Your task to perform on an android device: toggle javascript in the chrome app Image 0: 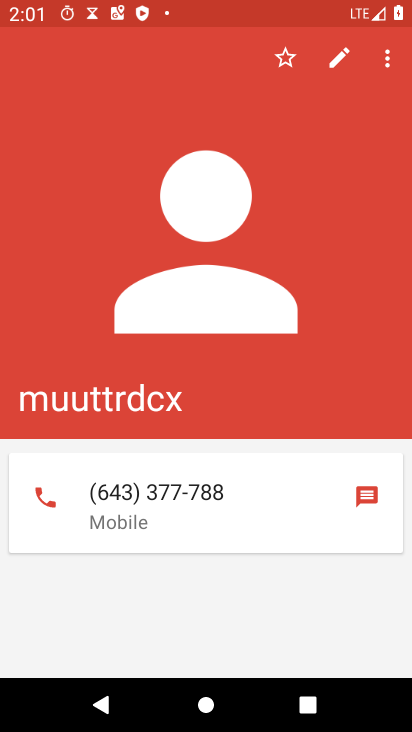
Step 0: press home button
Your task to perform on an android device: toggle javascript in the chrome app Image 1: 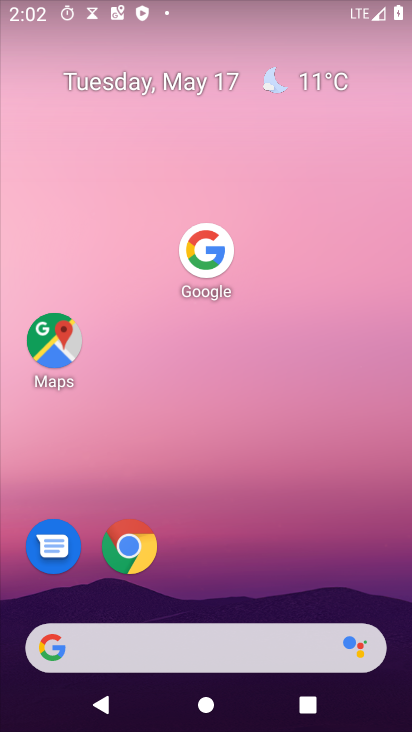
Step 1: click (120, 543)
Your task to perform on an android device: toggle javascript in the chrome app Image 2: 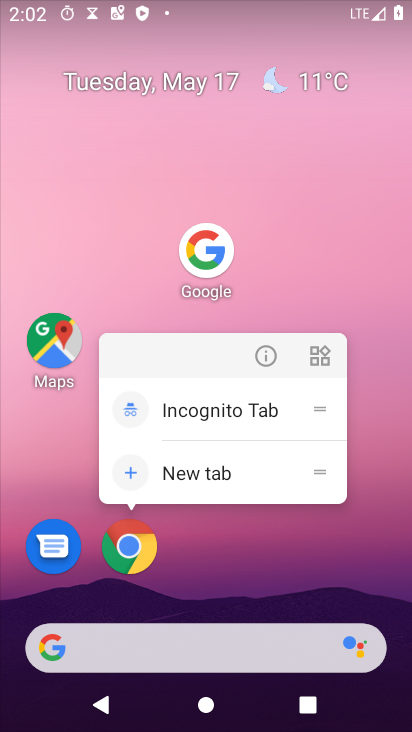
Step 2: click (127, 551)
Your task to perform on an android device: toggle javascript in the chrome app Image 3: 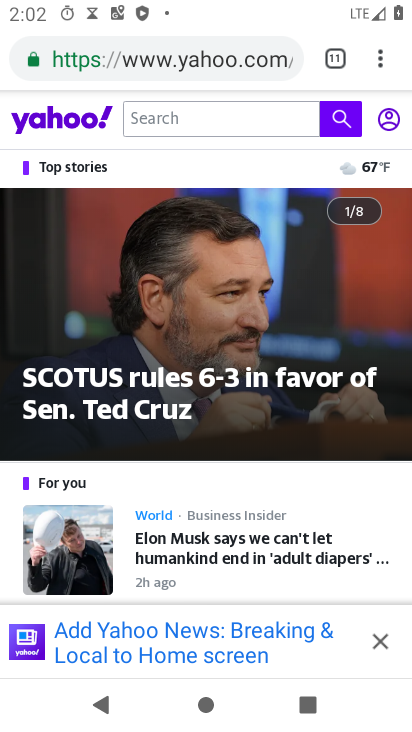
Step 3: drag from (379, 61) to (251, 565)
Your task to perform on an android device: toggle javascript in the chrome app Image 4: 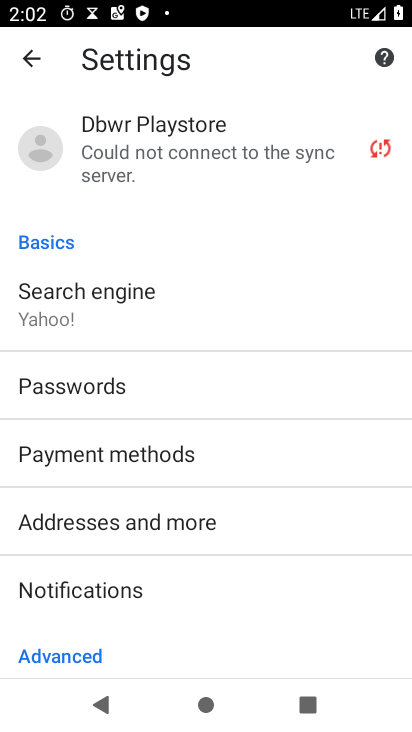
Step 4: drag from (230, 583) to (332, 98)
Your task to perform on an android device: toggle javascript in the chrome app Image 5: 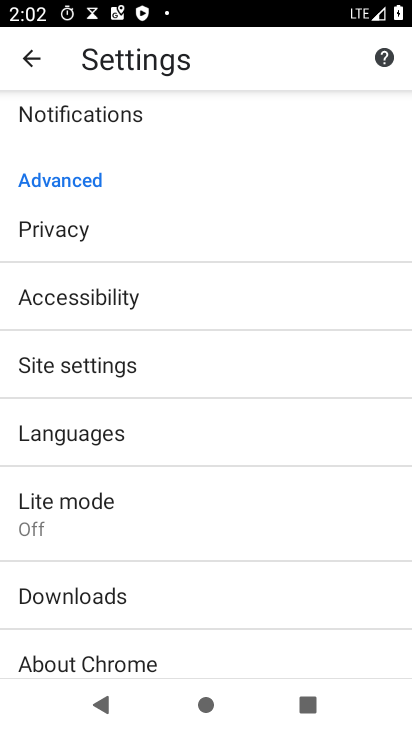
Step 5: click (103, 375)
Your task to perform on an android device: toggle javascript in the chrome app Image 6: 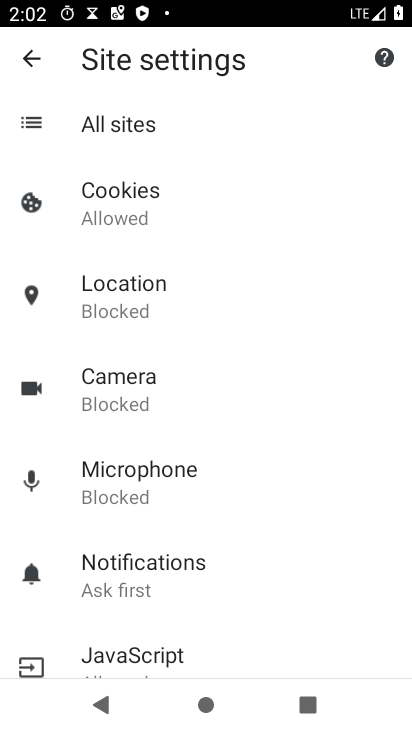
Step 6: drag from (219, 615) to (302, 216)
Your task to perform on an android device: toggle javascript in the chrome app Image 7: 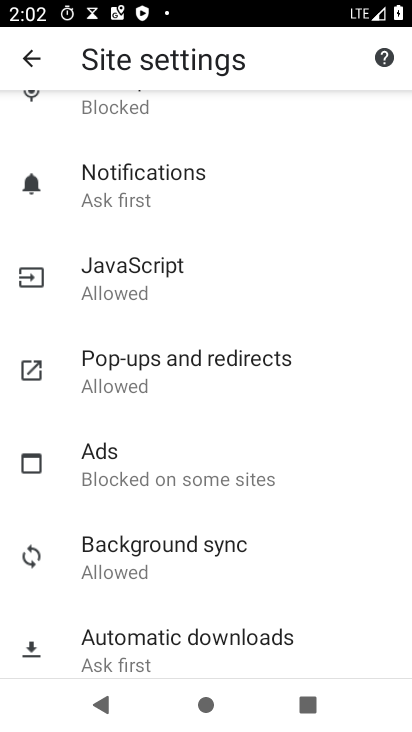
Step 7: click (124, 271)
Your task to perform on an android device: toggle javascript in the chrome app Image 8: 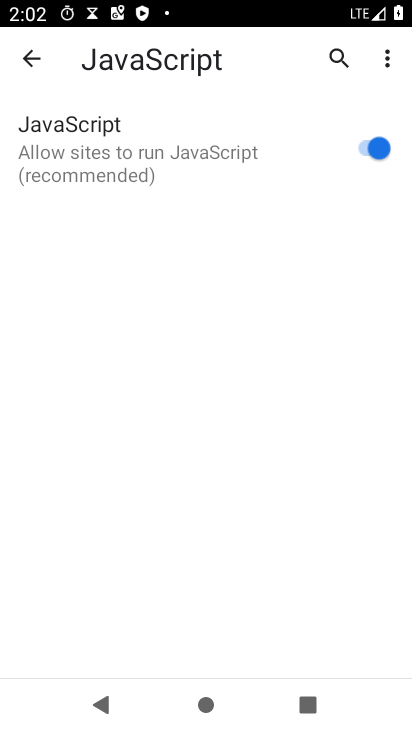
Step 8: click (368, 142)
Your task to perform on an android device: toggle javascript in the chrome app Image 9: 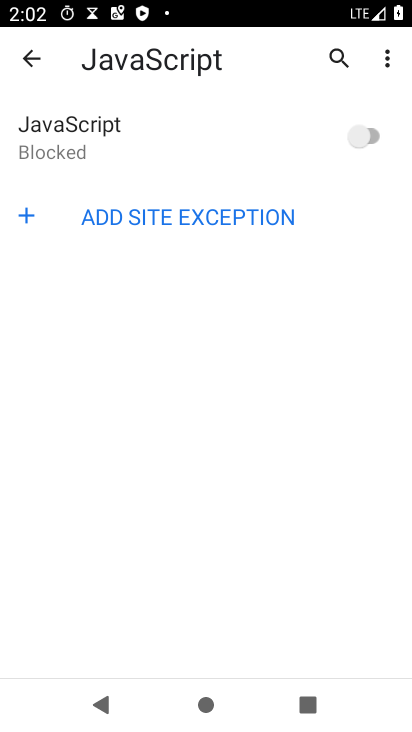
Step 9: task complete